Your task to perform on an android device: toggle pop-ups in chrome Image 0: 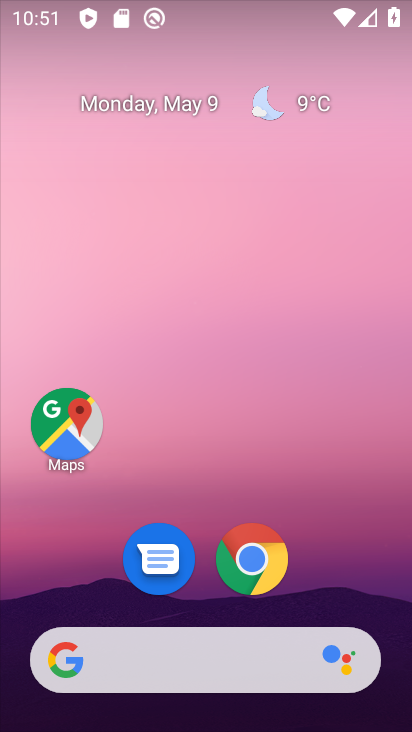
Step 0: drag from (351, 598) to (318, 175)
Your task to perform on an android device: toggle pop-ups in chrome Image 1: 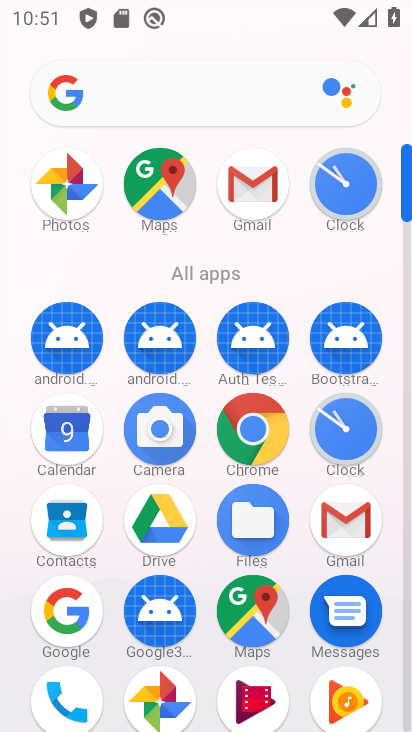
Step 1: click (242, 434)
Your task to perform on an android device: toggle pop-ups in chrome Image 2: 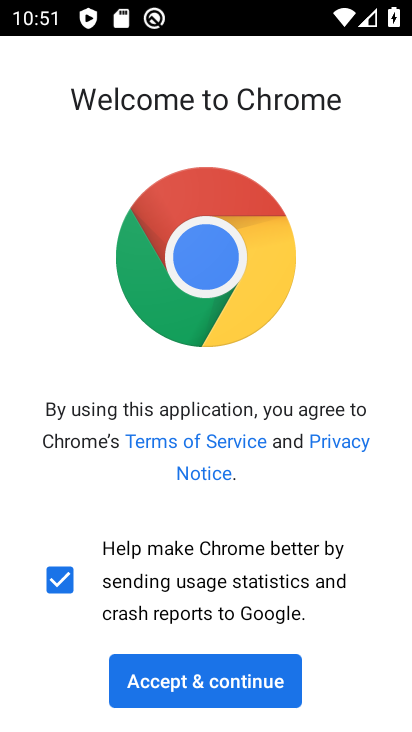
Step 2: click (247, 699)
Your task to perform on an android device: toggle pop-ups in chrome Image 3: 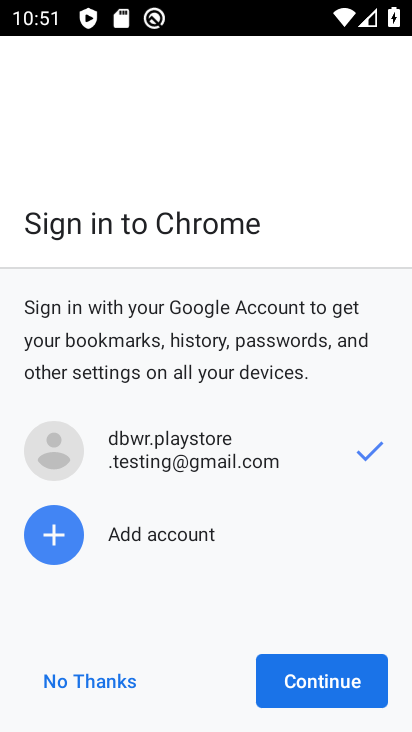
Step 3: click (111, 678)
Your task to perform on an android device: toggle pop-ups in chrome Image 4: 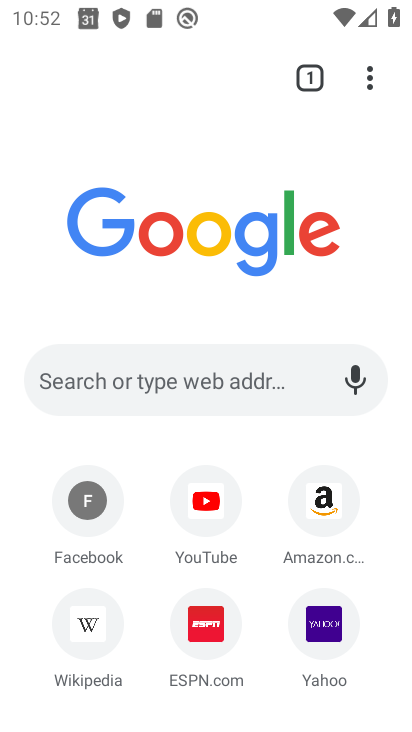
Step 4: drag from (363, 82) to (177, 622)
Your task to perform on an android device: toggle pop-ups in chrome Image 5: 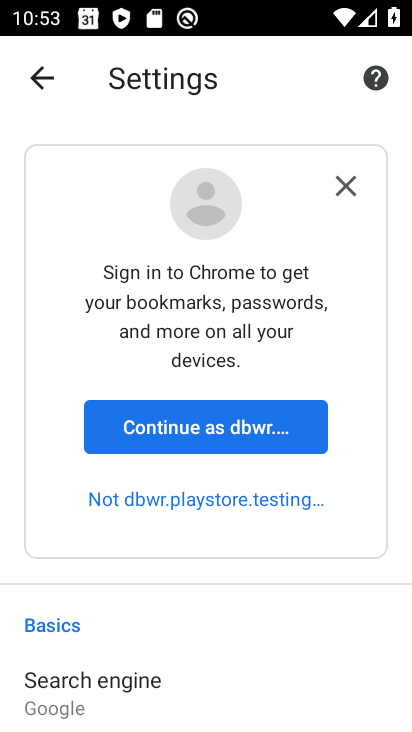
Step 5: drag from (168, 666) to (156, 309)
Your task to perform on an android device: toggle pop-ups in chrome Image 6: 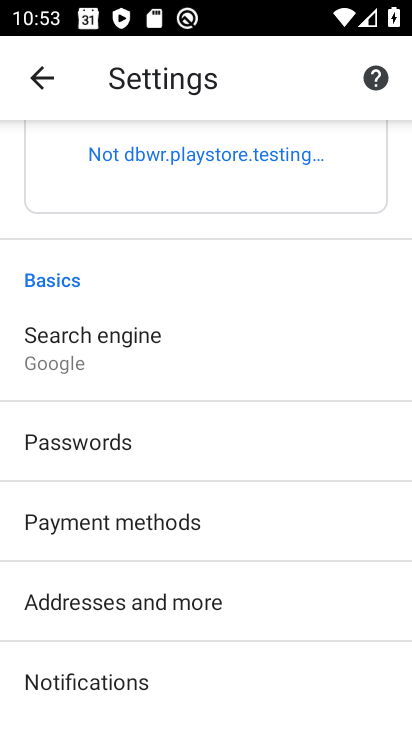
Step 6: drag from (245, 619) to (235, 294)
Your task to perform on an android device: toggle pop-ups in chrome Image 7: 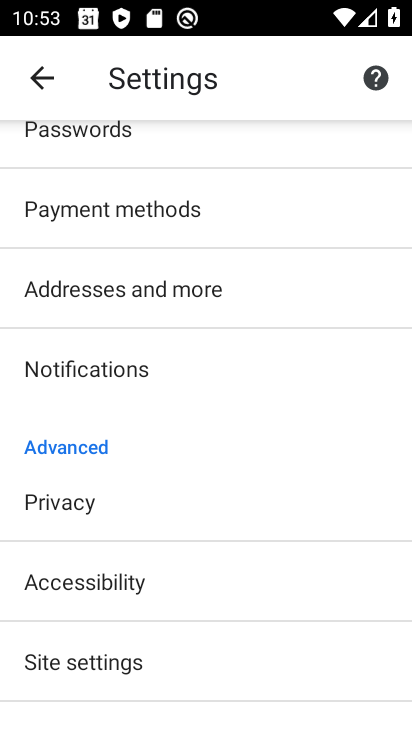
Step 7: drag from (182, 603) to (140, 324)
Your task to perform on an android device: toggle pop-ups in chrome Image 8: 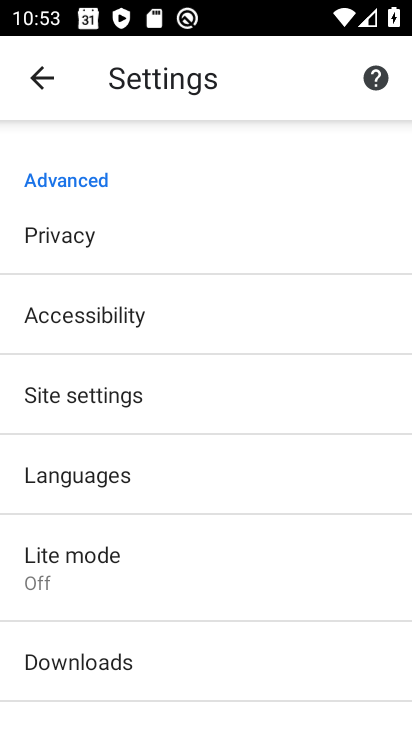
Step 8: click (67, 419)
Your task to perform on an android device: toggle pop-ups in chrome Image 9: 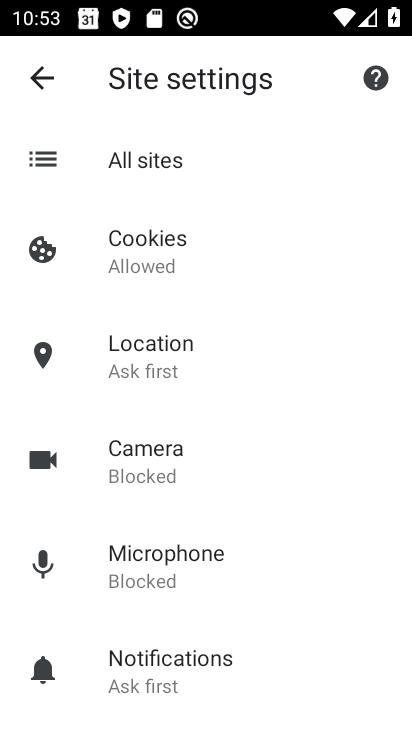
Step 9: drag from (199, 658) to (135, 286)
Your task to perform on an android device: toggle pop-ups in chrome Image 10: 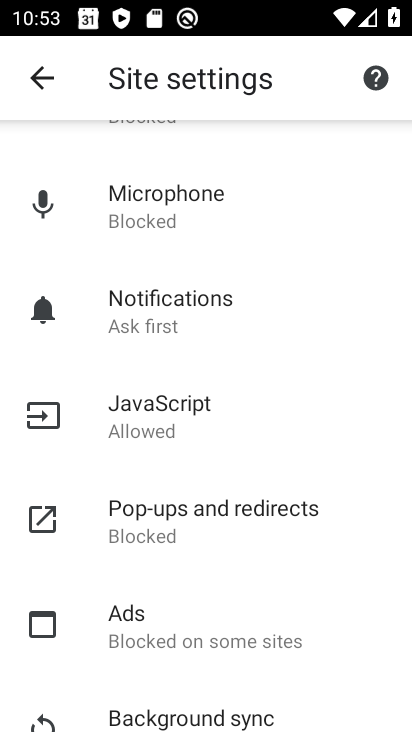
Step 10: click (200, 508)
Your task to perform on an android device: toggle pop-ups in chrome Image 11: 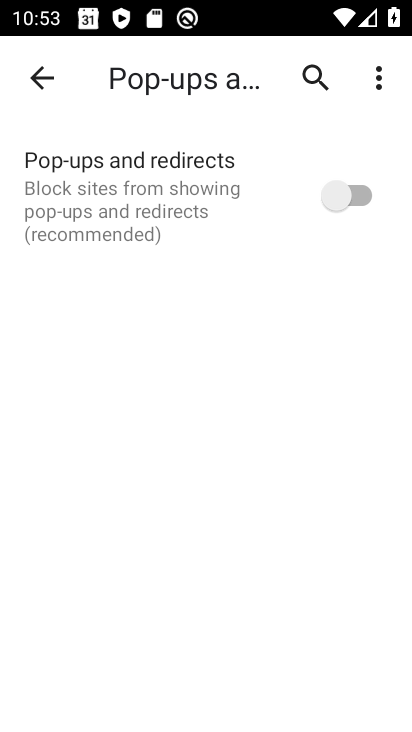
Step 11: click (351, 198)
Your task to perform on an android device: toggle pop-ups in chrome Image 12: 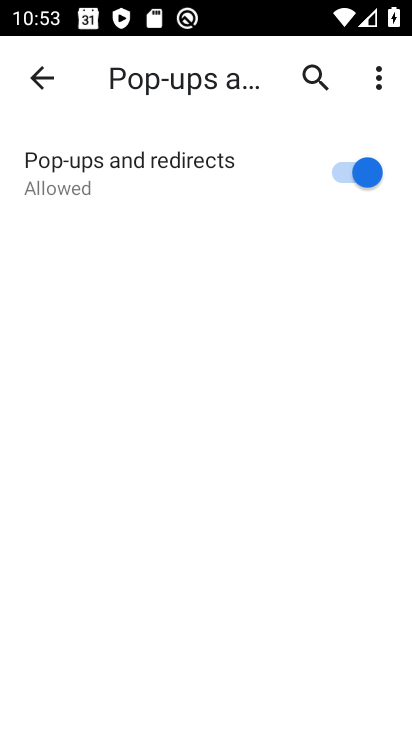
Step 12: task complete